Your task to perform on an android device: clear all cookies in the chrome app Image 0: 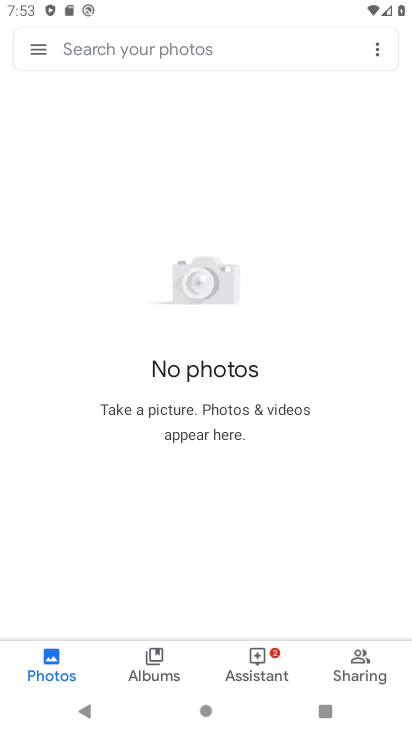
Step 0: press home button
Your task to perform on an android device: clear all cookies in the chrome app Image 1: 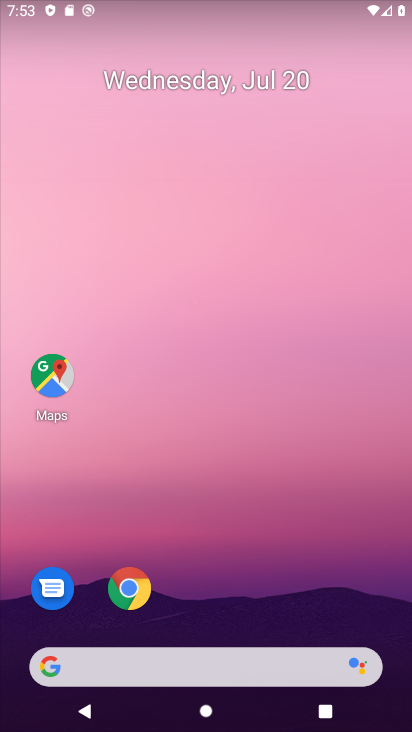
Step 1: click (131, 566)
Your task to perform on an android device: clear all cookies in the chrome app Image 2: 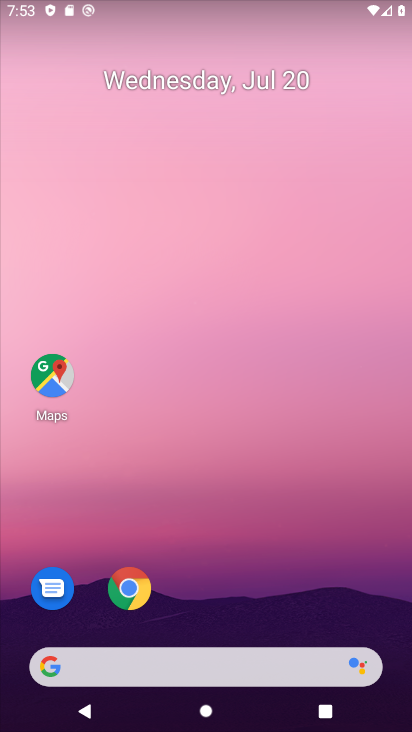
Step 2: click (123, 585)
Your task to perform on an android device: clear all cookies in the chrome app Image 3: 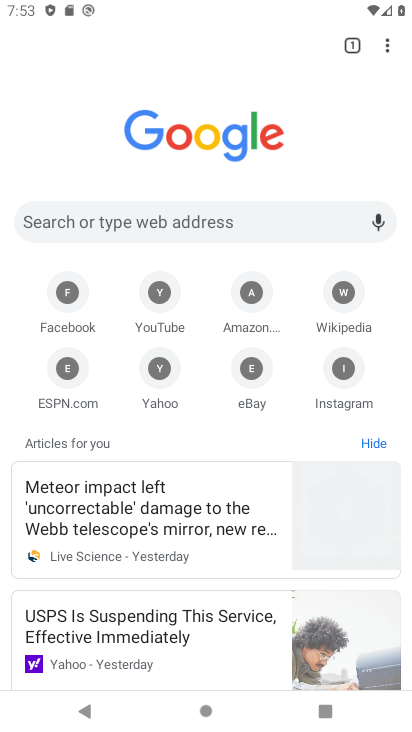
Step 3: click (381, 45)
Your task to perform on an android device: clear all cookies in the chrome app Image 4: 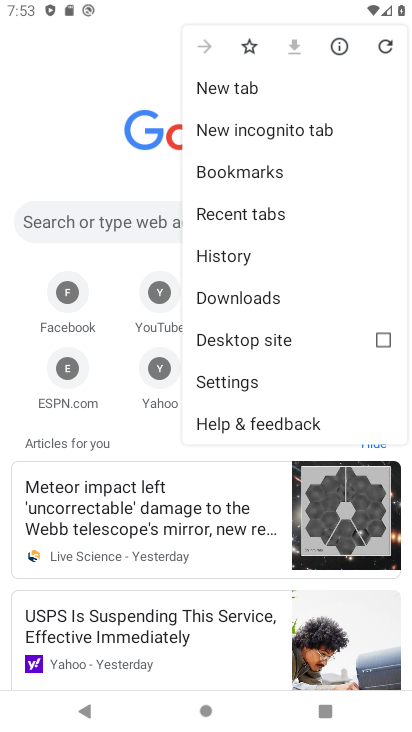
Step 4: click (228, 259)
Your task to perform on an android device: clear all cookies in the chrome app Image 5: 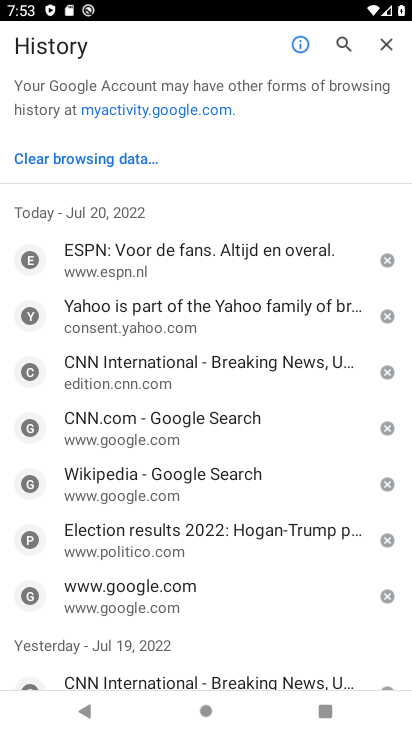
Step 5: click (100, 153)
Your task to perform on an android device: clear all cookies in the chrome app Image 6: 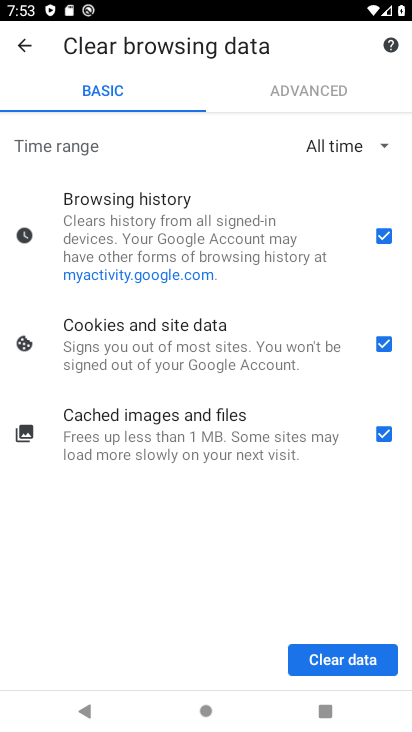
Step 6: click (380, 229)
Your task to perform on an android device: clear all cookies in the chrome app Image 7: 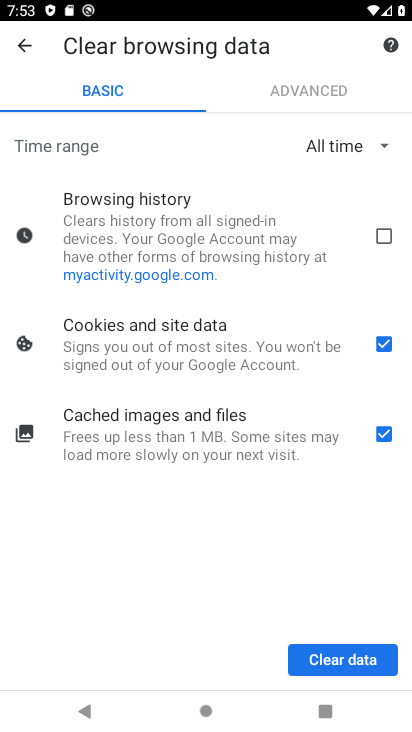
Step 7: click (382, 426)
Your task to perform on an android device: clear all cookies in the chrome app Image 8: 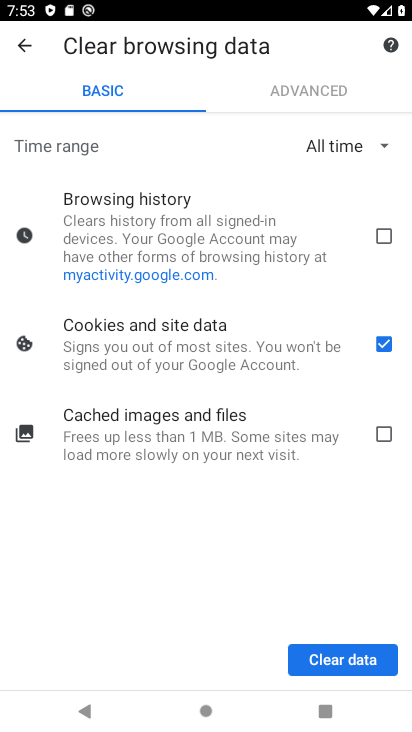
Step 8: click (326, 657)
Your task to perform on an android device: clear all cookies in the chrome app Image 9: 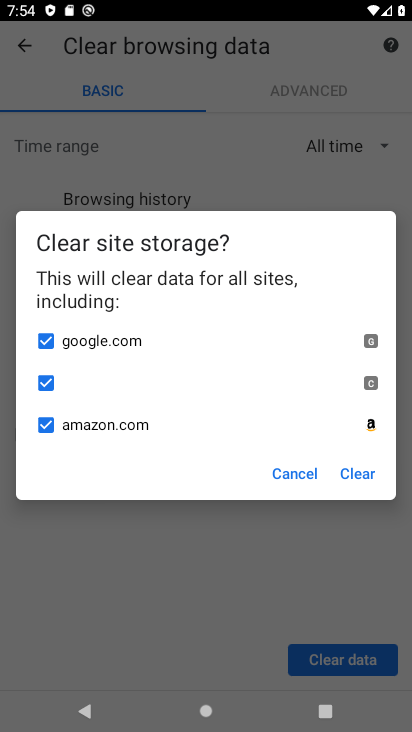
Step 9: click (366, 474)
Your task to perform on an android device: clear all cookies in the chrome app Image 10: 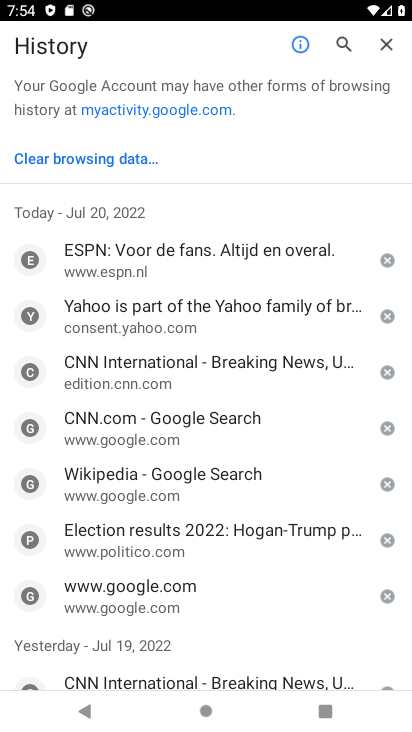
Step 10: click (74, 152)
Your task to perform on an android device: clear all cookies in the chrome app Image 11: 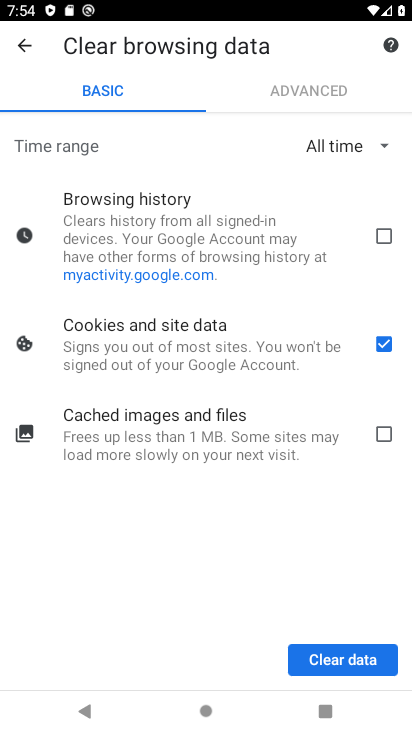
Step 11: click (315, 653)
Your task to perform on an android device: clear all cookies in the chrome app Image 12: 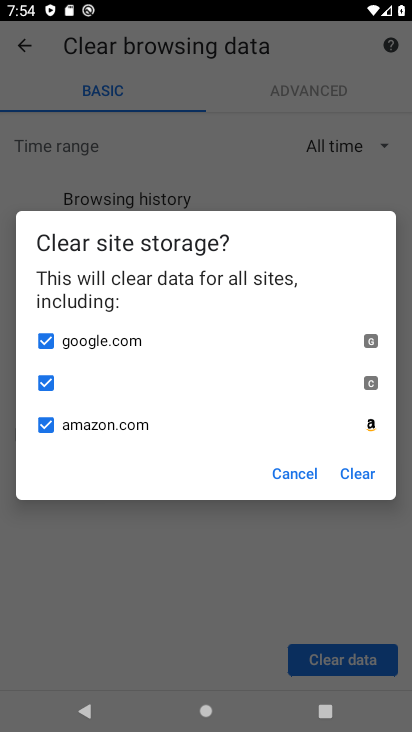
Step 12: click (346, 480)
Your task to perform on an android device: clear all cookies in the chrome app Image 13: 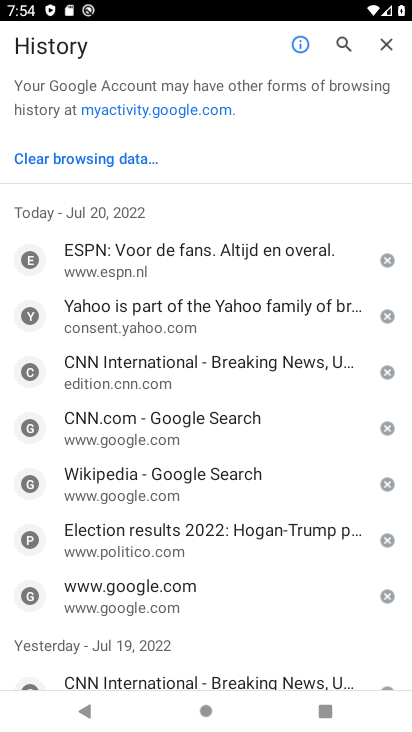
Step 13: task complete